Your task to perform on an android device: What is the news today? Image 0: 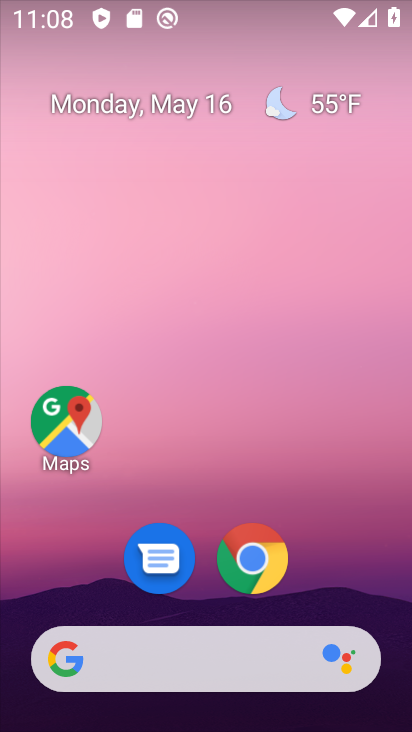
Step 0: drag from (211, 511) to (256, 109)
Your task to perform on an android device: What is the news today? Image 1: 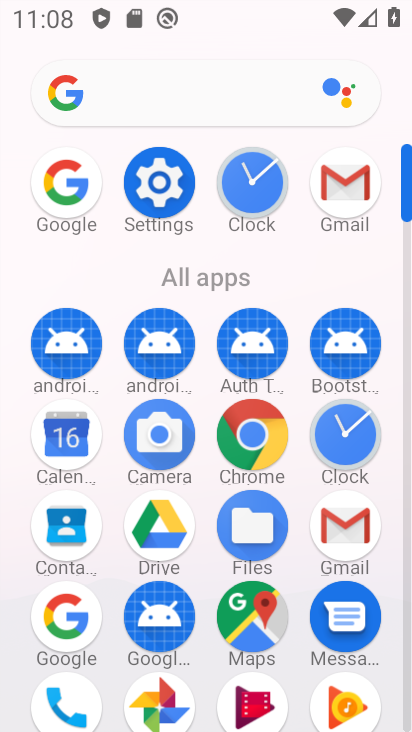
Step 1: click (70, 617)
Your task to perform on an android device: What is the news today? Image 2: 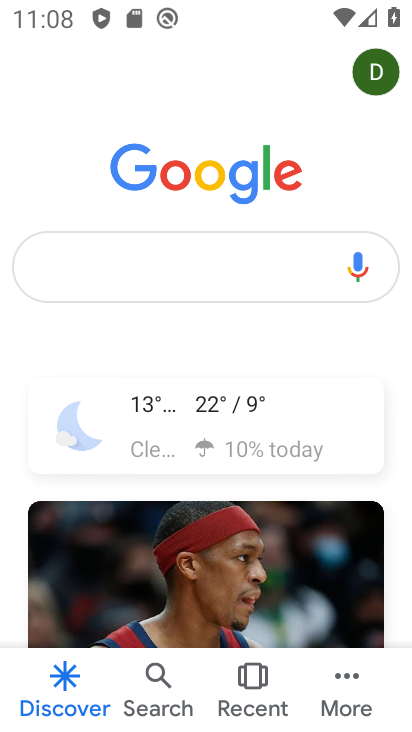
Step 2: click (169, 268)
Your task to perform on an android device: What is the news today? Image 3: 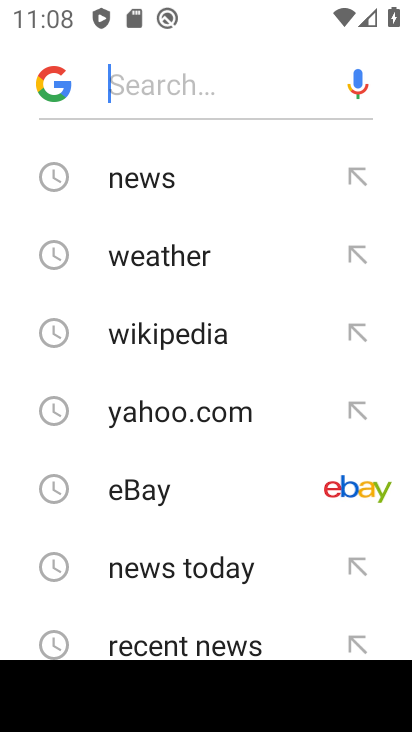
Step 3: click (162, 184)
Your task to perform on an android device: What is the news today? Image 4: 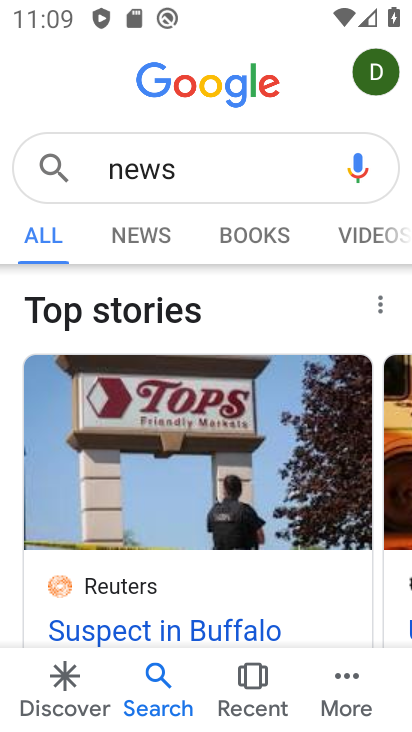
Step 4: task complete